Your task to perform on an android device: turn off wifi Image 0: 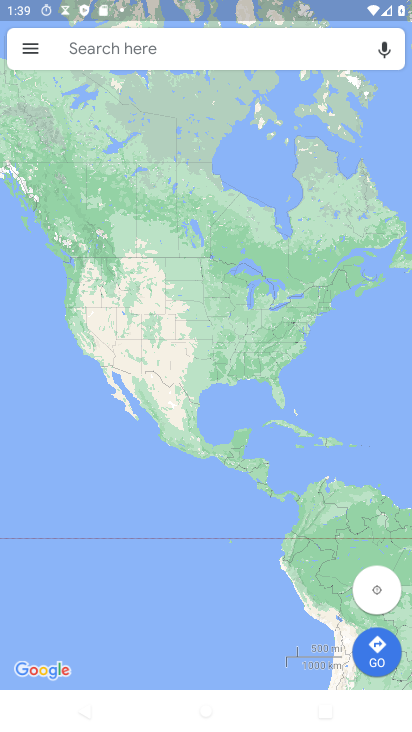
Step 0: press home button
Your task to perform on an android device: turn off wifi Image 1: 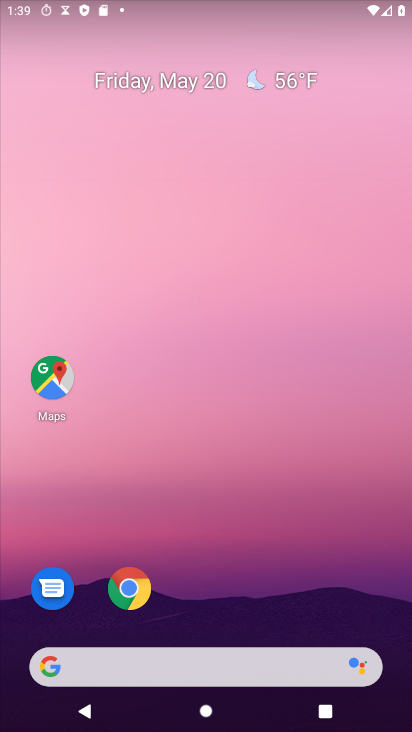
Step 1: drag from (225, 8) to (184, 425)
Your task to perform on an android device: turn off wifi Image 2: 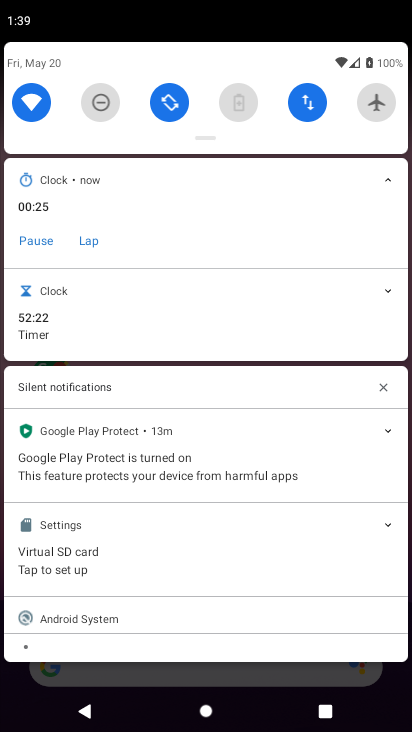
Step 2: click (31, 107)
Your task to perform on an android device: turn off wifi Image 3: 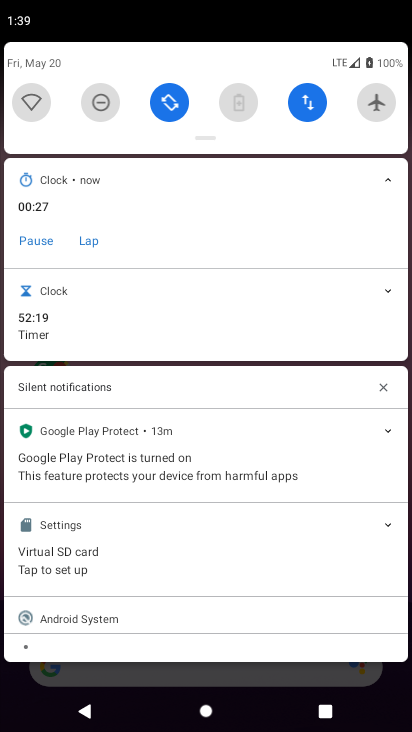
Step 3: task complete